Your task to perform on an android device: turn notification dots on Image 0: 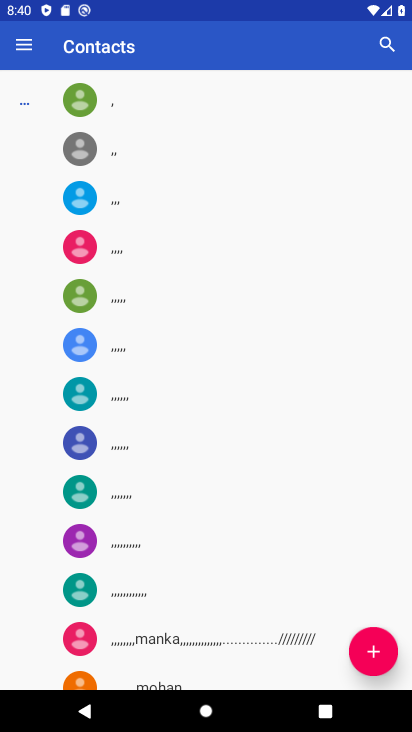
Step 0: press home button
Your task to perform on an android device: turn notification dots on Image 1: 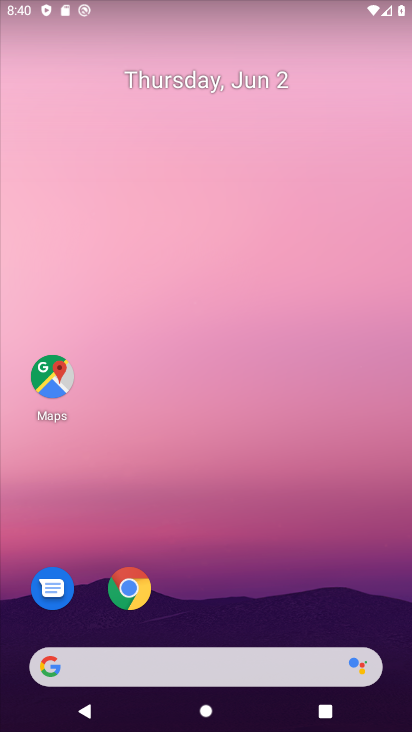
Step 1: drag from (285, 661) to (295, 154)
Your task to perform on an android device: turn notification dots on Image 2: 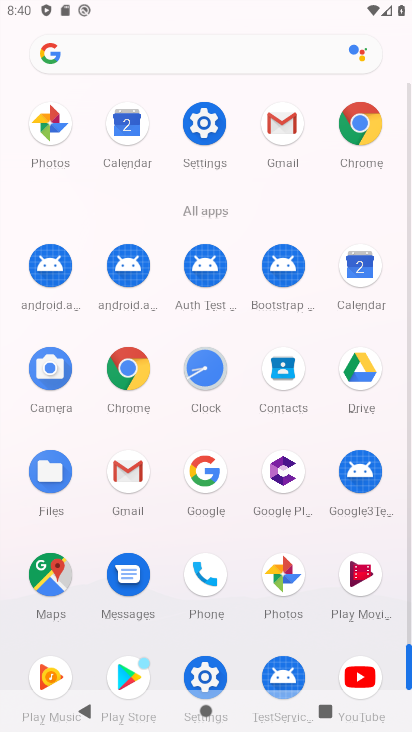
Step 2: click (201, 140)
Your task to perform on an android device: turn notification dots on Image 3: 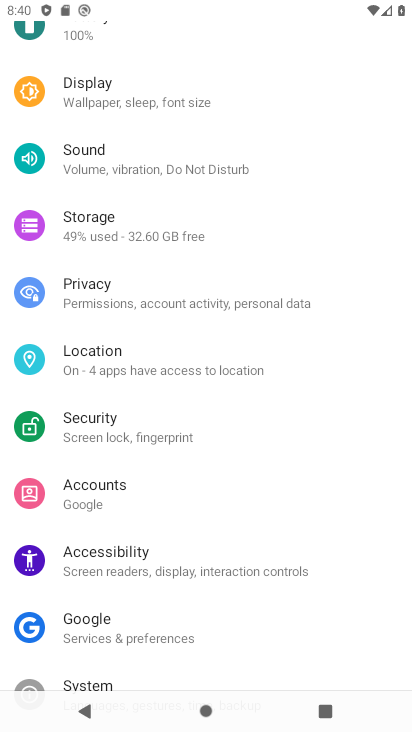
Step 3: drag from (198, 128) to (173, 450)
Your task to perform on an android device: turn notification dots on Image 4: 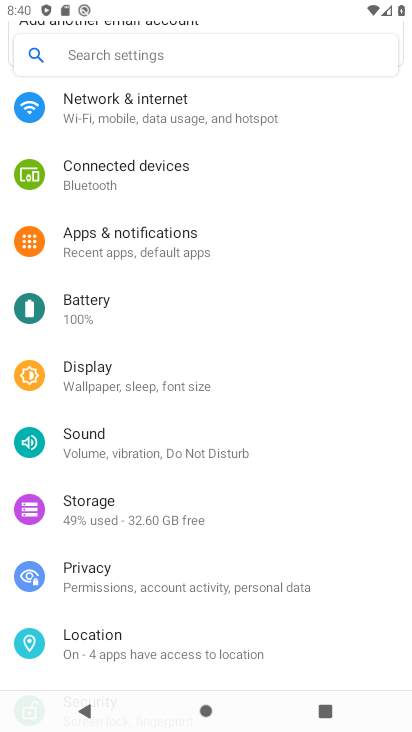
Step 4: click (157, 239)
Your task to perform on an android device: turn notification dots on Image 5: 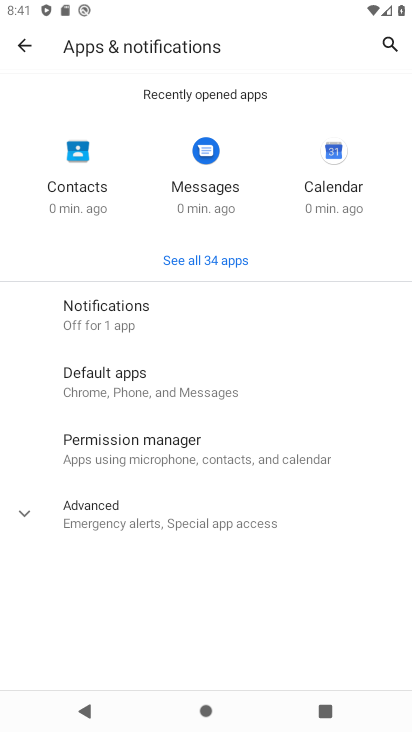
Step 5: click (163, 320)
Your task to perform on an android device: turn notification dots on Image 6: 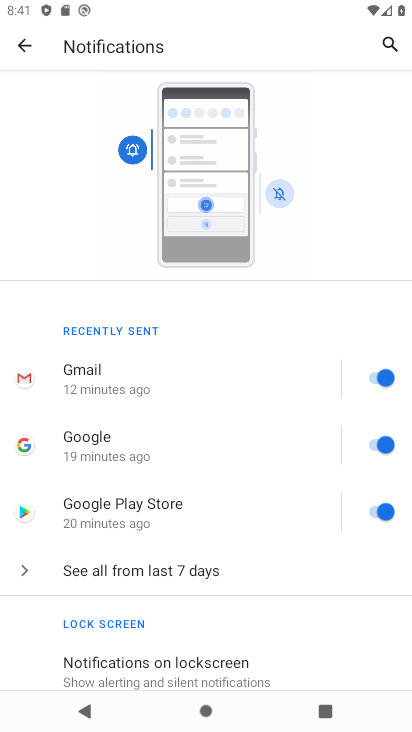
Step 6: drag from (177, 610) to (190, 416)
Your task to perform on an android device: turn notification dots on Image 7: 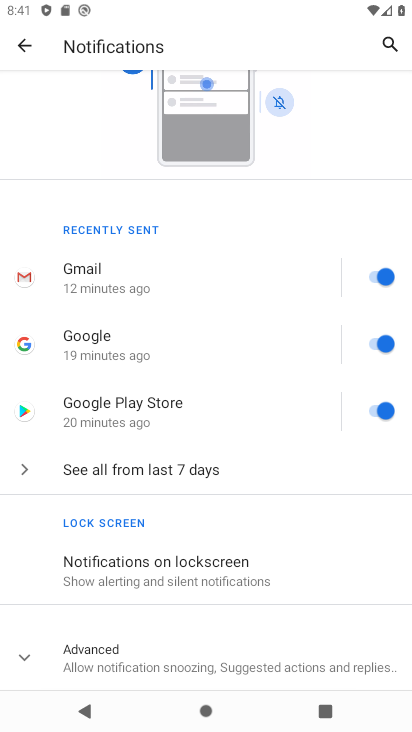
Step 7: click (190, 660)
Your task to perform on an android device: turn notification dots on Image 8: 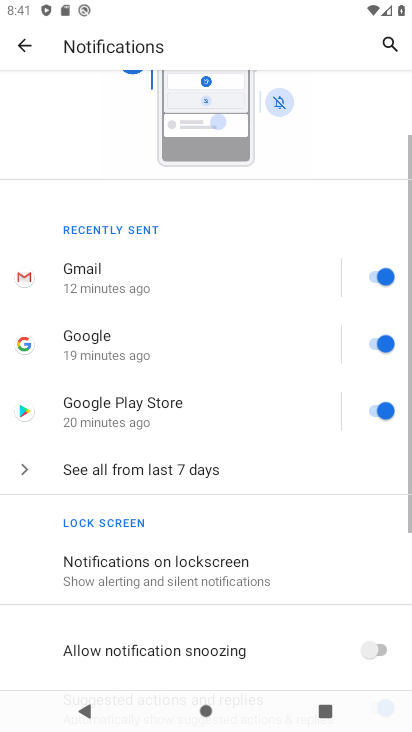
Step 8: task complete